Your task to perform on an android device: open chrome and create a bookmark for the current page Image 0: 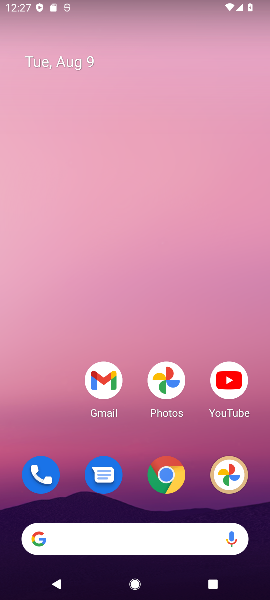
Step 0: click (172, 466)
Your task to perform on an android device: open chrome and create a bookmark for the current page Image 1: 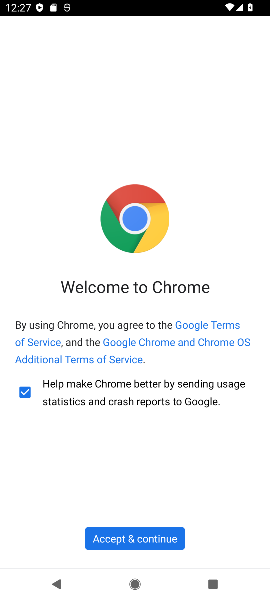
Step 1: click (127, 535)
Your task to perform on an android device: open chrome and create a bookmark for the current page Image 2: 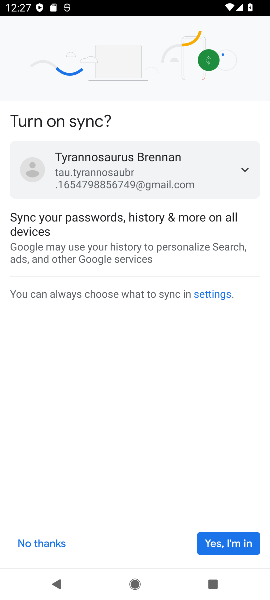
Step 2: click (215, 549)
Your task to perform on an android device: open chrome and create a bookmark for the current page Image 3: 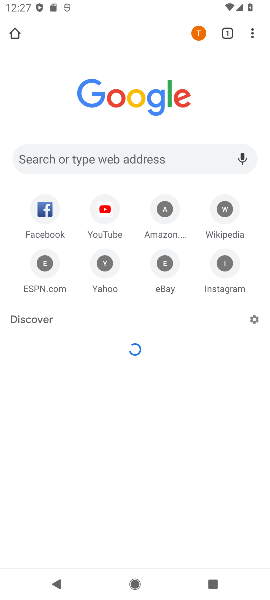
Step 3: click (255, 31)
Your task to perform on an android device: open chrome and create a bookmark for the current page Image 4: 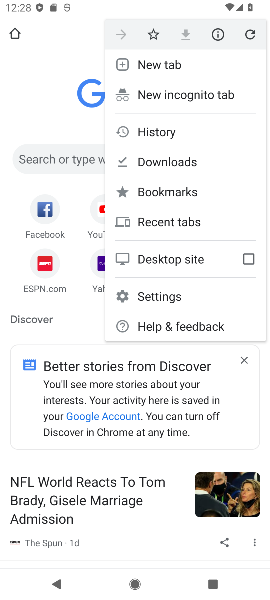
Step 4: click (153, 33)
Your task to perform on an android device: open chrome and create a bookmark for the current page Image 5: 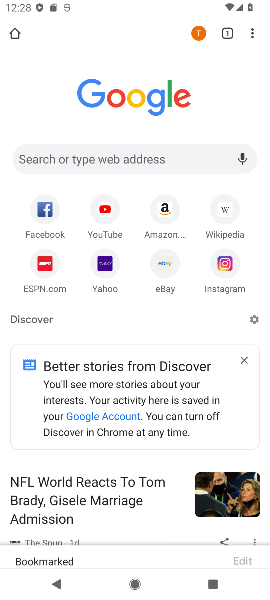
Step 5: task complete